Your task to perform on an android device: turn off priority inbox in the gmail app Image 0: 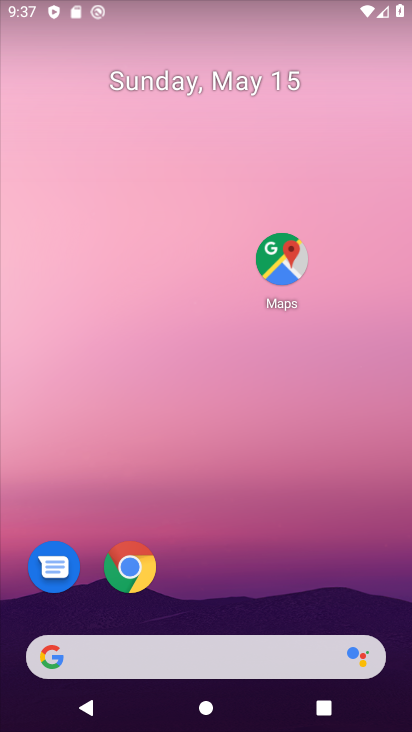
Step 0: drag from (227, 595) to (201, 121)
Your task to perform on an android device: turn off priority inbox in the gmail app Image 1: 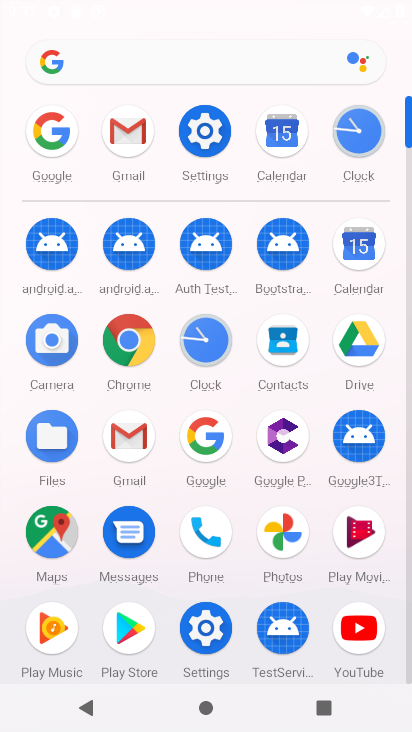
Step 1: click (127, 128)
Your task to perform on an android device: turn off priority inbox in the gmail app Image 2: 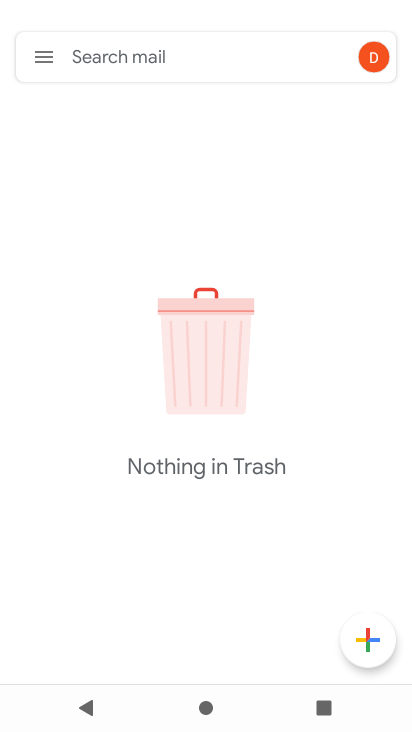
Step 2: click (48, 50)
Your task to perform on an android device: turn off priority inbox in the gmail app Image 3: 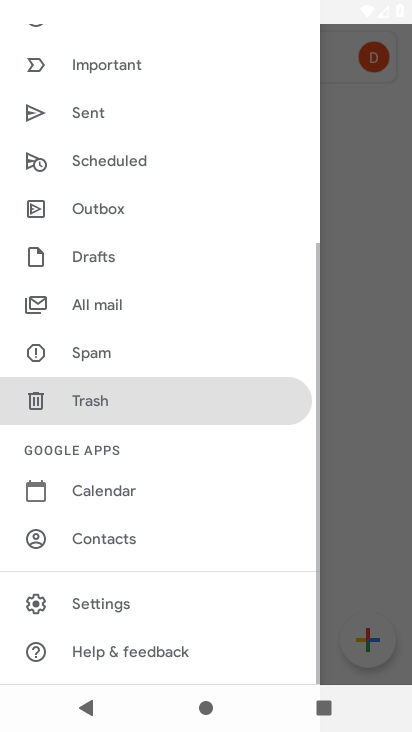
Step 3: click (112, 603)
Your task to perform on an android device: turn off priority inbox in the gmail app Image 4: 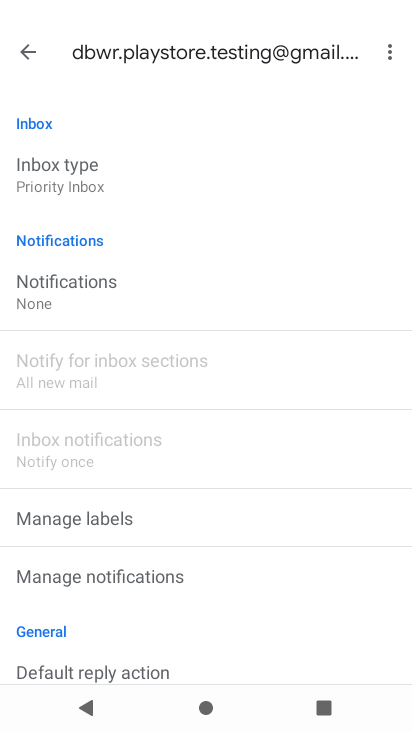
Step 4: click (96, 170)
Your task to perform on an android device: turn off priority inbox in the gmail app Image 5: 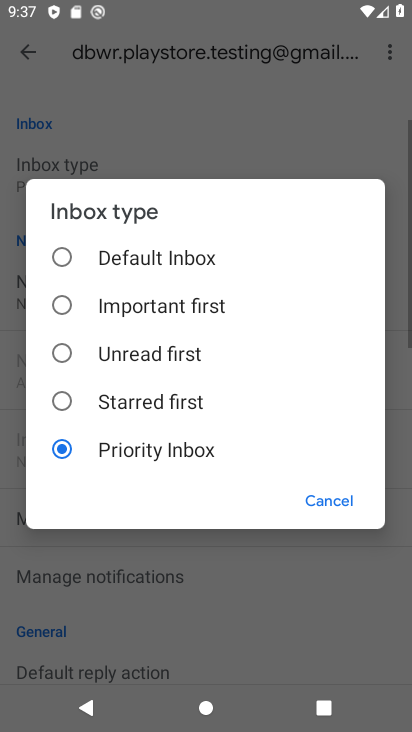
Step 5: click (55, 265)
Your task to perform on an android device: turn off priority inbox in the gmail app Image 6: 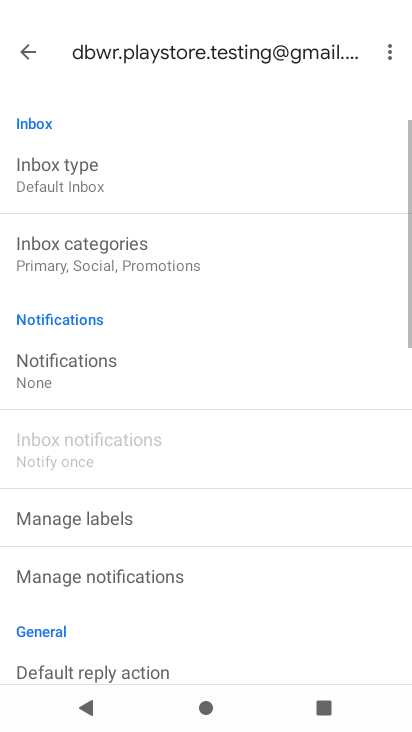
Step 6: task complete